Your task to perform on an android device: turn vacation reply on in the gmail app Image 0: 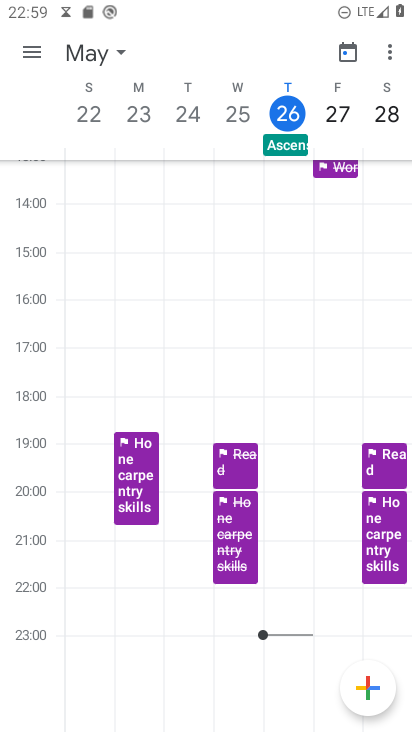
Step 0: press home button
Your task to perform on an android device: turn vacation reply on in the gmail app Image 1: 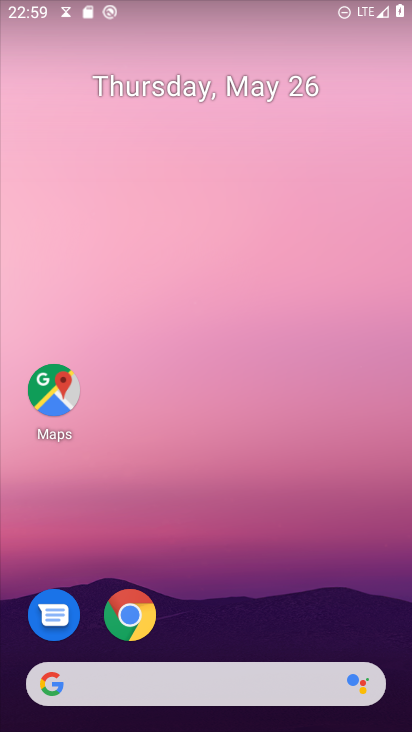
Step 1: drag from (235, 569) to (236, 283)
Your task to perform on an android device: turn vacation reply on in the gmail app Image 2: 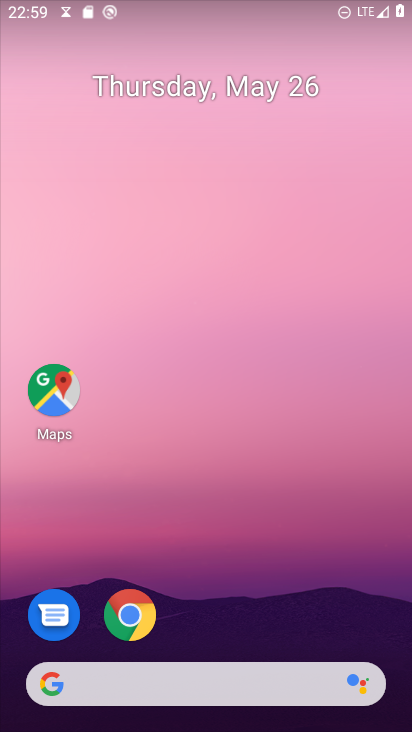
Step 2: drag from (241, 615) to (240, 169)
Your task to perform on an android device: turn vacation reply on in the gmail app Image 3: 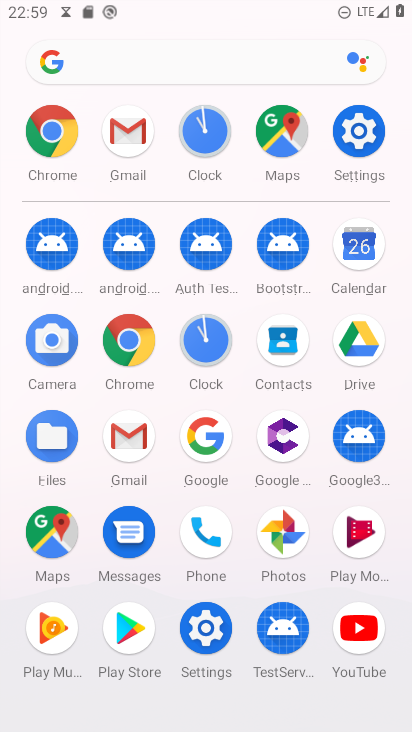
Step 3: click (125, 432)
Your task to perform on an android device: turn vacation reply on in the gmail app Image 4: 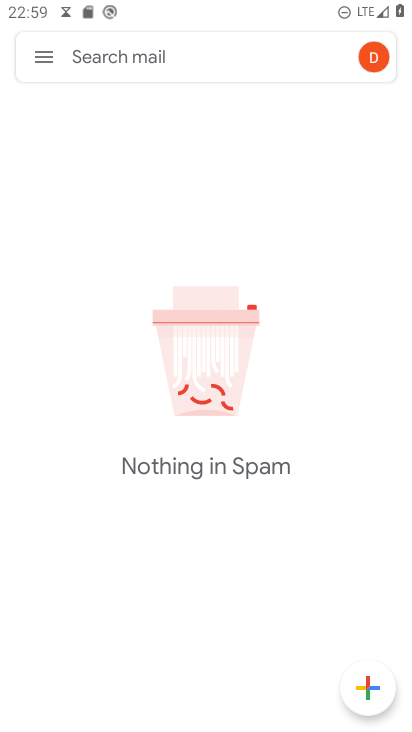
Step 4: click (48, 53)
Your task to perform on an android device: turn vacation reply on in the gmail app Image 5: 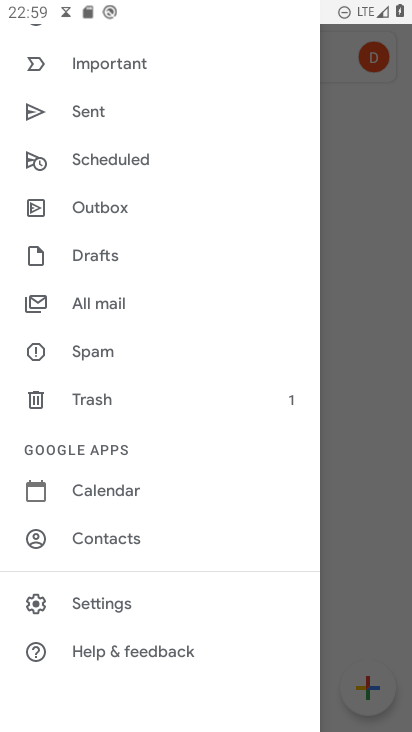
Step 5: click (122, 599)
Your task to perform on an android device: turn vacation reply on in the gmail app Image 6: 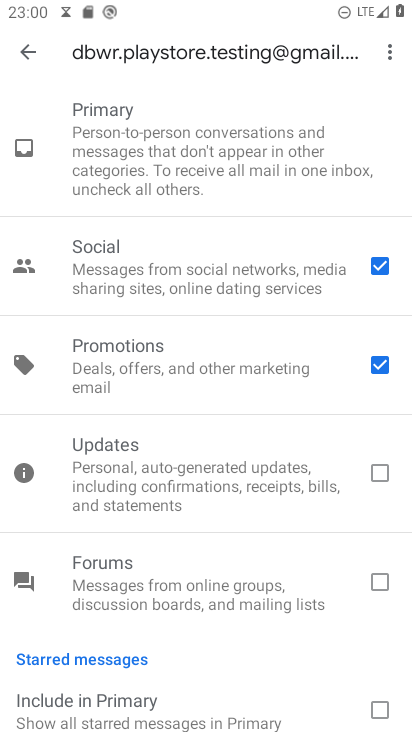
Step 6: click (18, 57)
Your task to perform on an android device: turn vacation reply on in the gmail app Image 7: 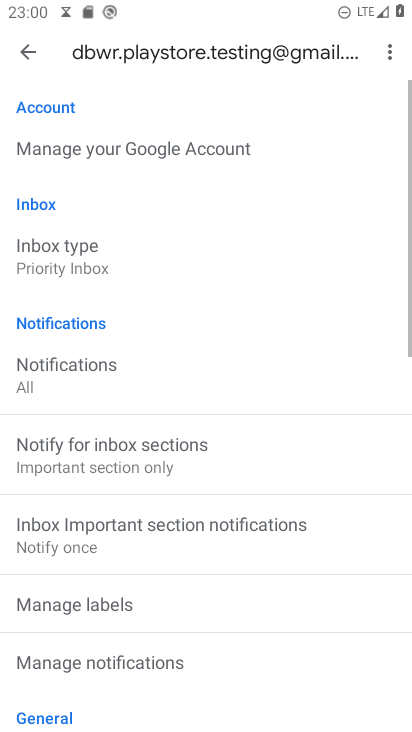
Step 7: drag from (166, 622) to (197, 162)
Your task to perform on an android device: turn vacation reply on in the gmail app Image 8: 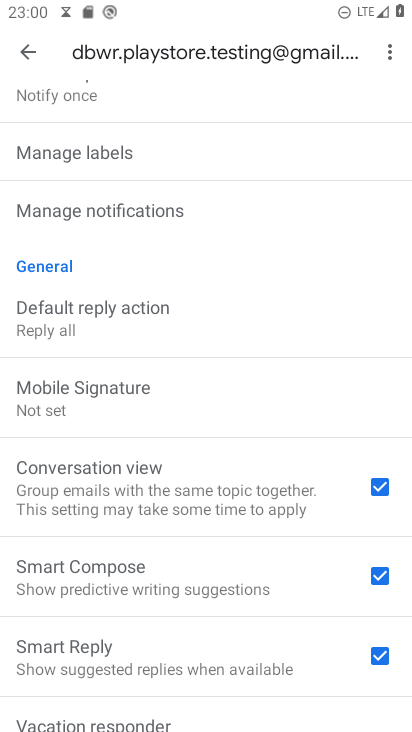
Step 8: drag from (188, 619) to (192, 370)
Your task to perform on an android device: turn vacation reply on in the gmail app Image 9: 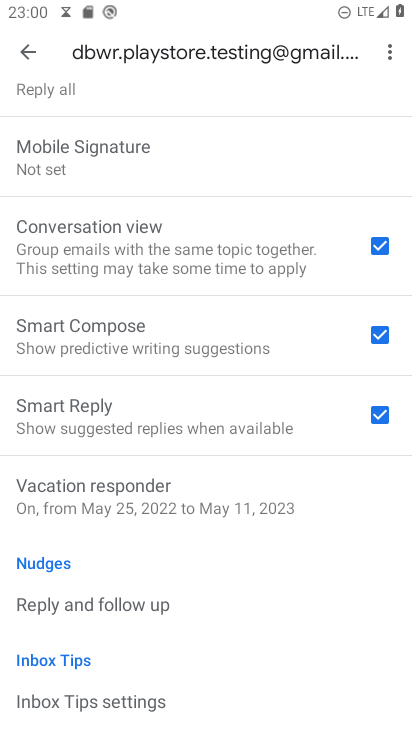
Step 9: click (193, 506)
Your task to perform on an android device: turn vacation reply on in the gmail app Image 10: 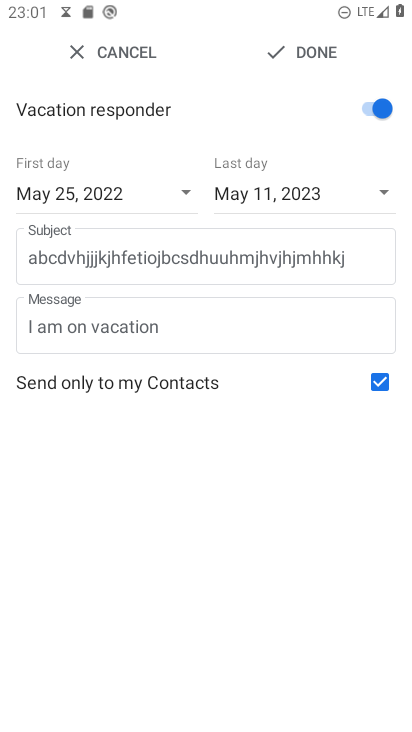
Step 10: task complete